Your task to perform on an android device: add a contact Image 0: 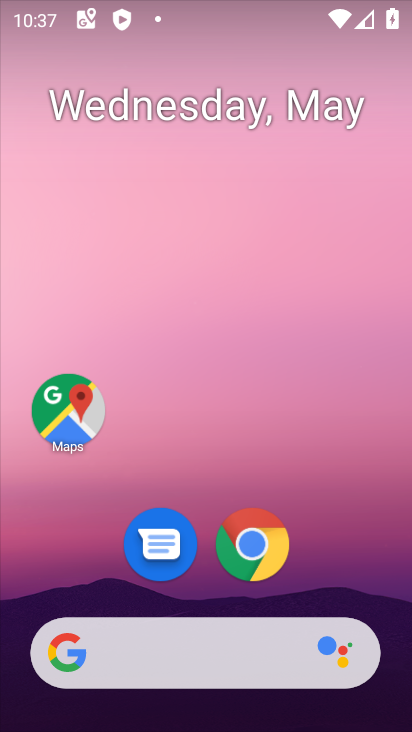
Step 0: drag from (344, 626) to (407, 314)
Your task to perform on an android device: add a contact Image 1: 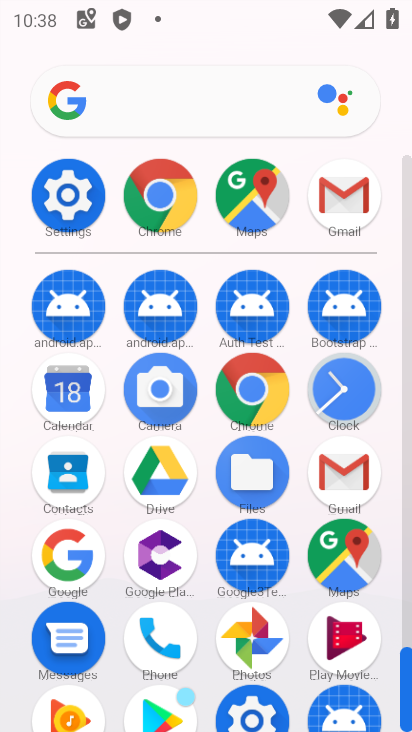
Step 1: click (74, 458)
Your task to perform on an android device: add a contact Image 2: 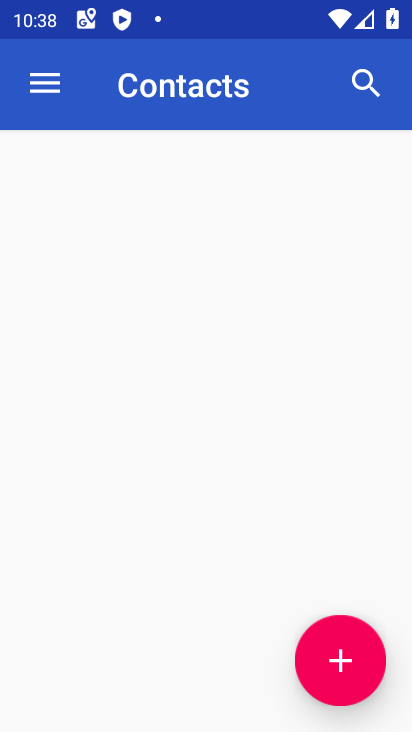
Step 2: task complete